Your task to perform on an android device: Go to Maps Image 0: 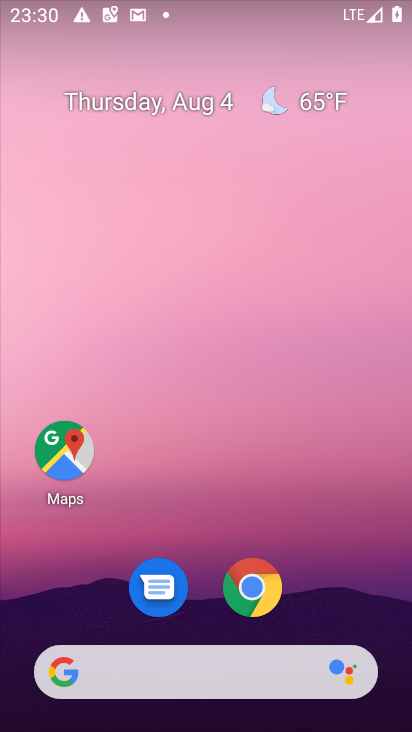
Step 0: drag from (235, 645) to (243, 256)
Your task to perform on an android device: Go to Maps Image 1: 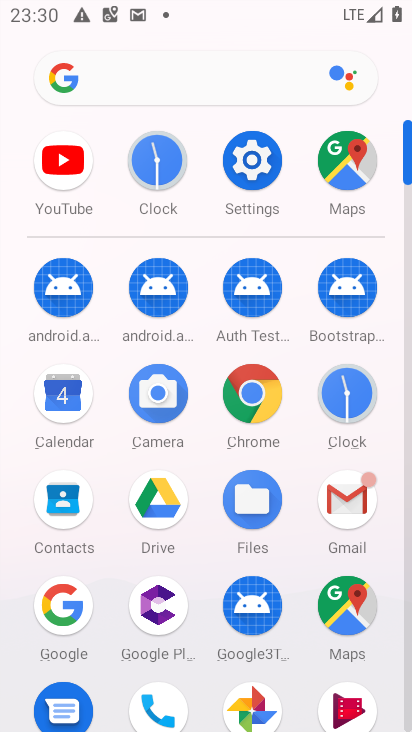
Step 1: click (339, 170)
Your task to perform on an android device: Go to Maps Image 2: 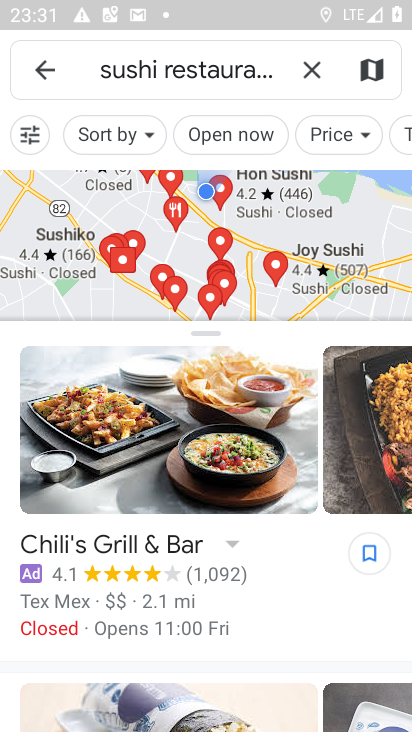
Step 2: task complete